Your task to perform on an android device: What's the weather today? Image 0: 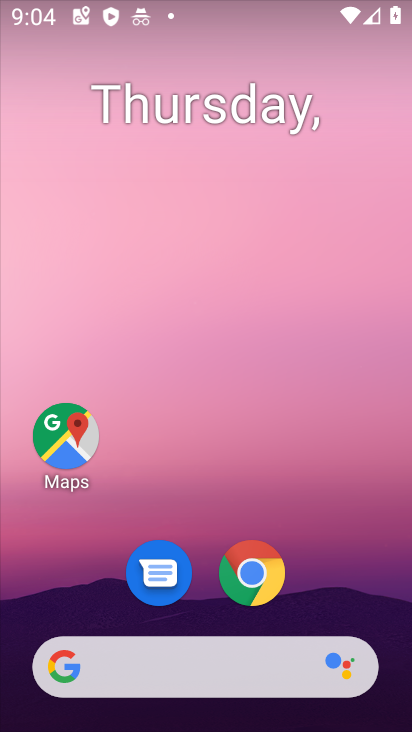
Step 0: drag from (319, 198) to (319, 162)
Your task to perform on an android device: What's the weather today? Image 1: 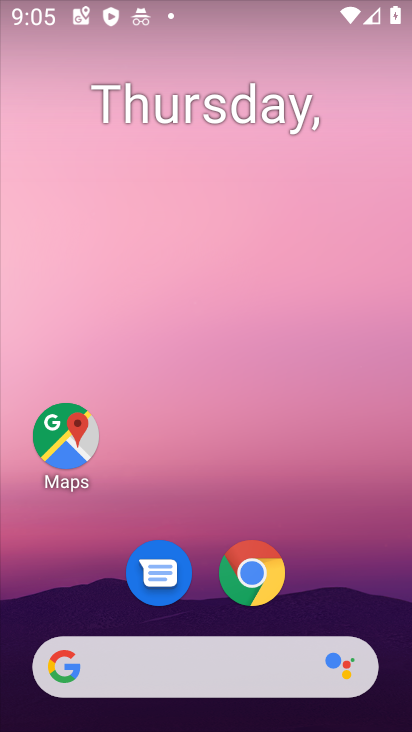
Step 1: drag from (345, 599) to (301, 196)
Your task to perform on an android device: What's the weather today? Image 2: 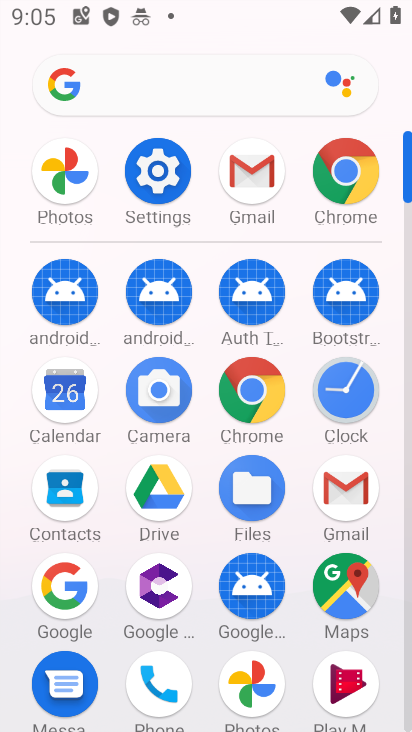
Step 2: click (248, 413)
Your task to perform on an android device: What's the weather today? Image 3: 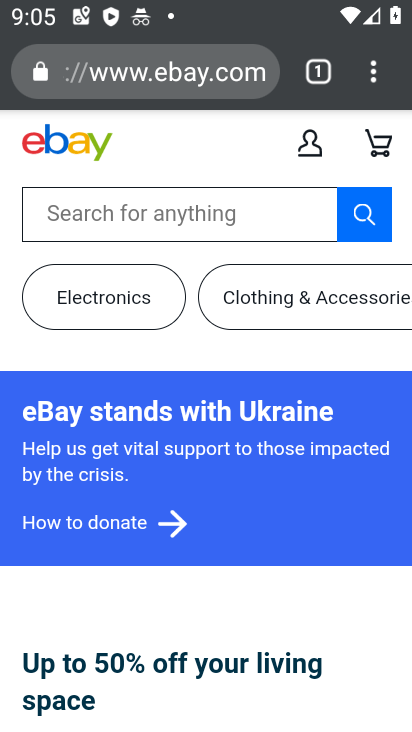
Step 3: click (173, 78)
Your task to perform on an android device: What's the weather today? Image 4: 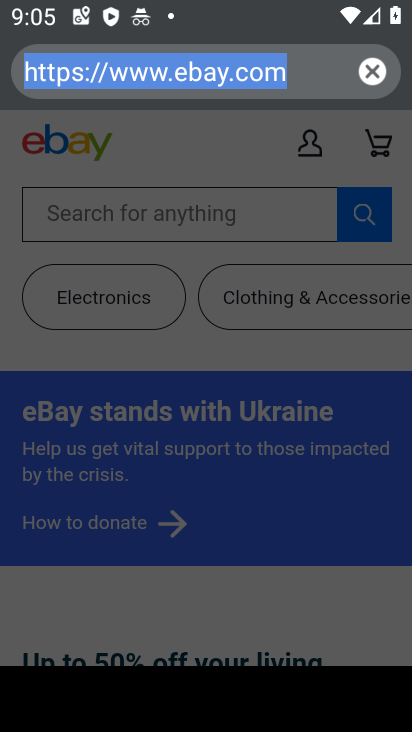
Step 4: click (371, 75)
Your task to perform on an android device: What's the weather today? Image 5: 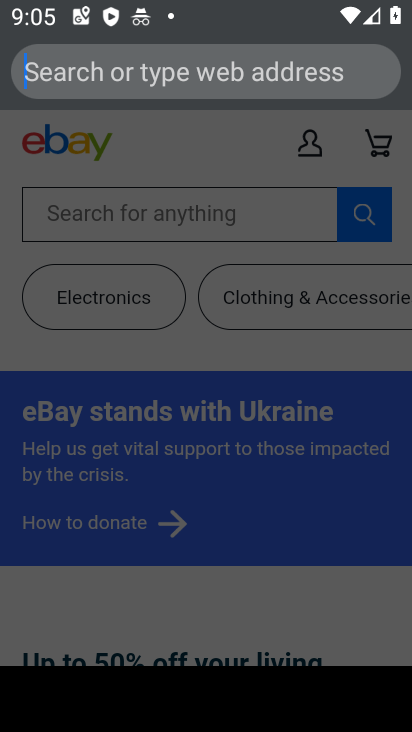
Step 5: type "what's the weather today"
Your task to perform on an android device: What's the weather today? Image 6: 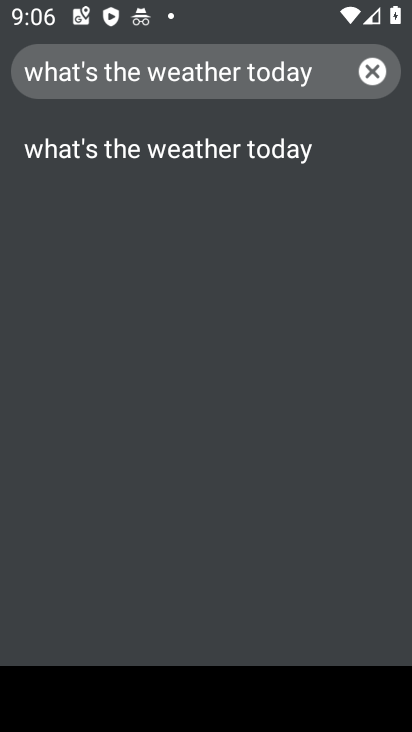
Step 6: click (220, 150)
Your task to perform on an android device: What's the weather today? Image 7: 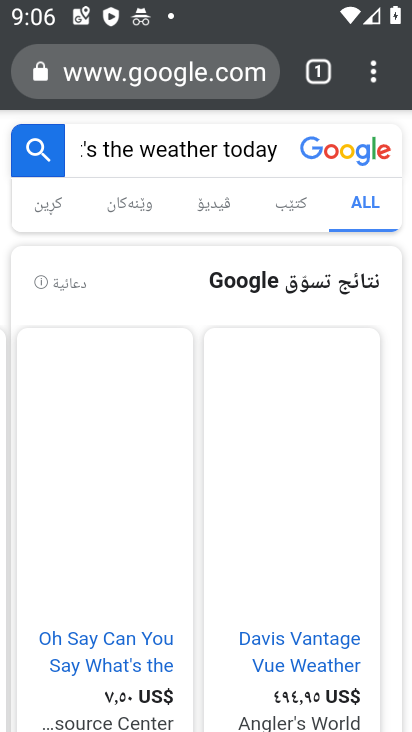
Step 7: task complete